Your task to perform on an android device: change notifications settings Image 0: 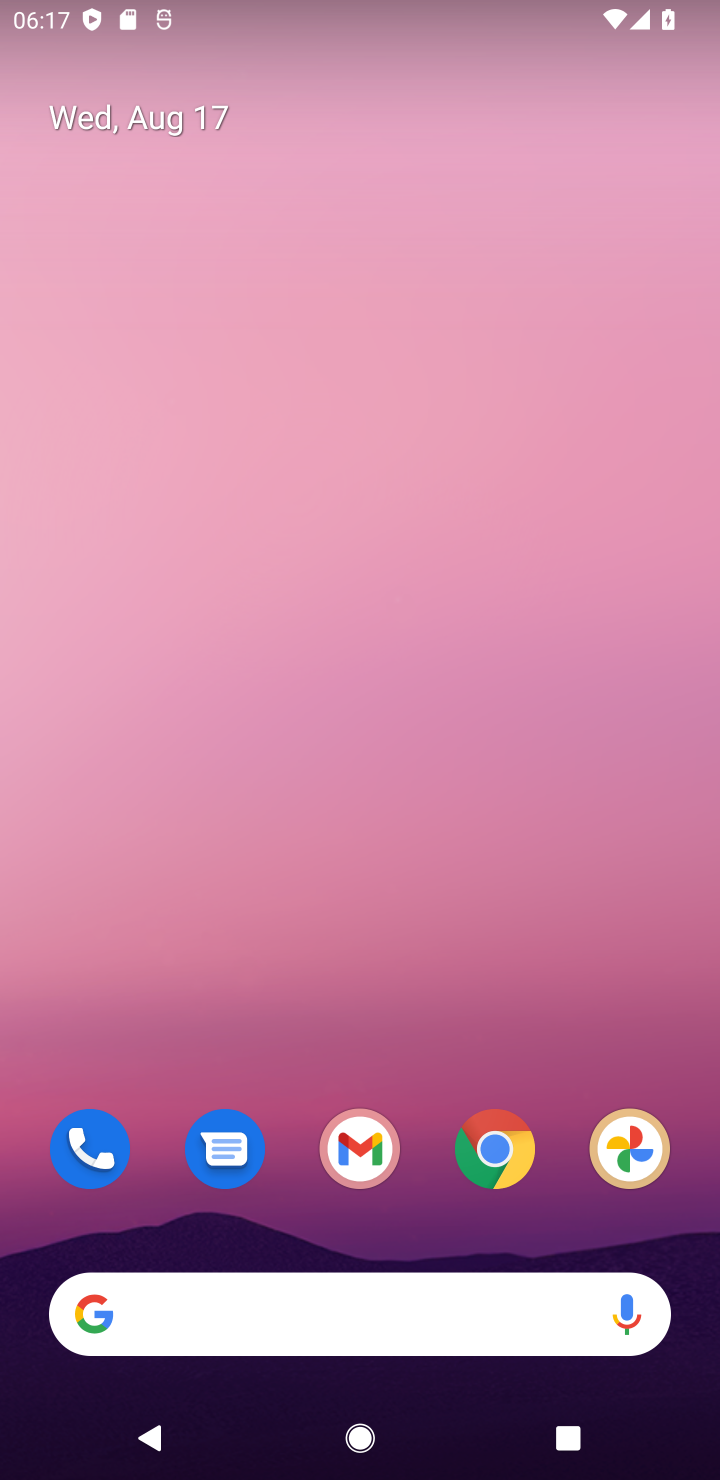
Step 0: drag from (409, 1061) to (340, 208)
Your task to perform on an android device: change notifications settings Image 1: 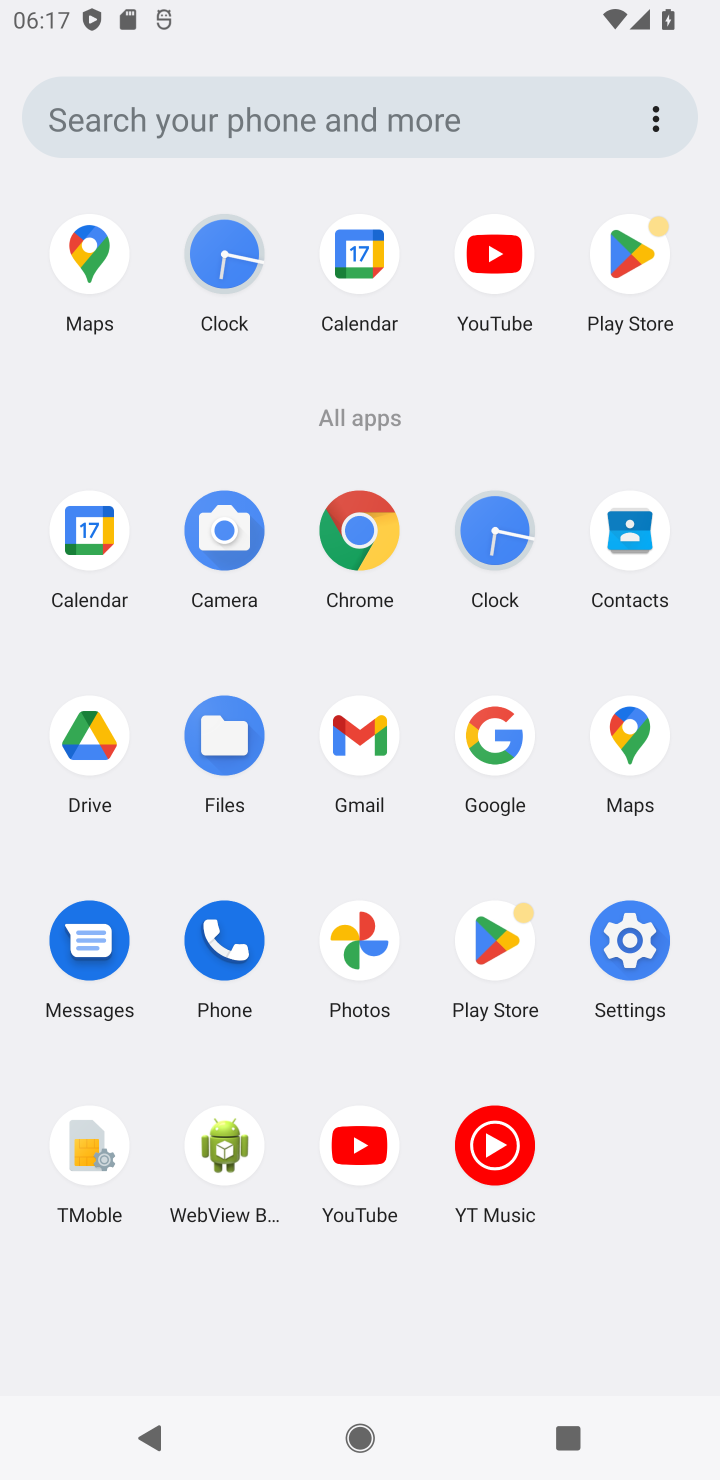
Step 1: click (629, 939)
Your task to perform on an android device: change notifications settings Image 2: 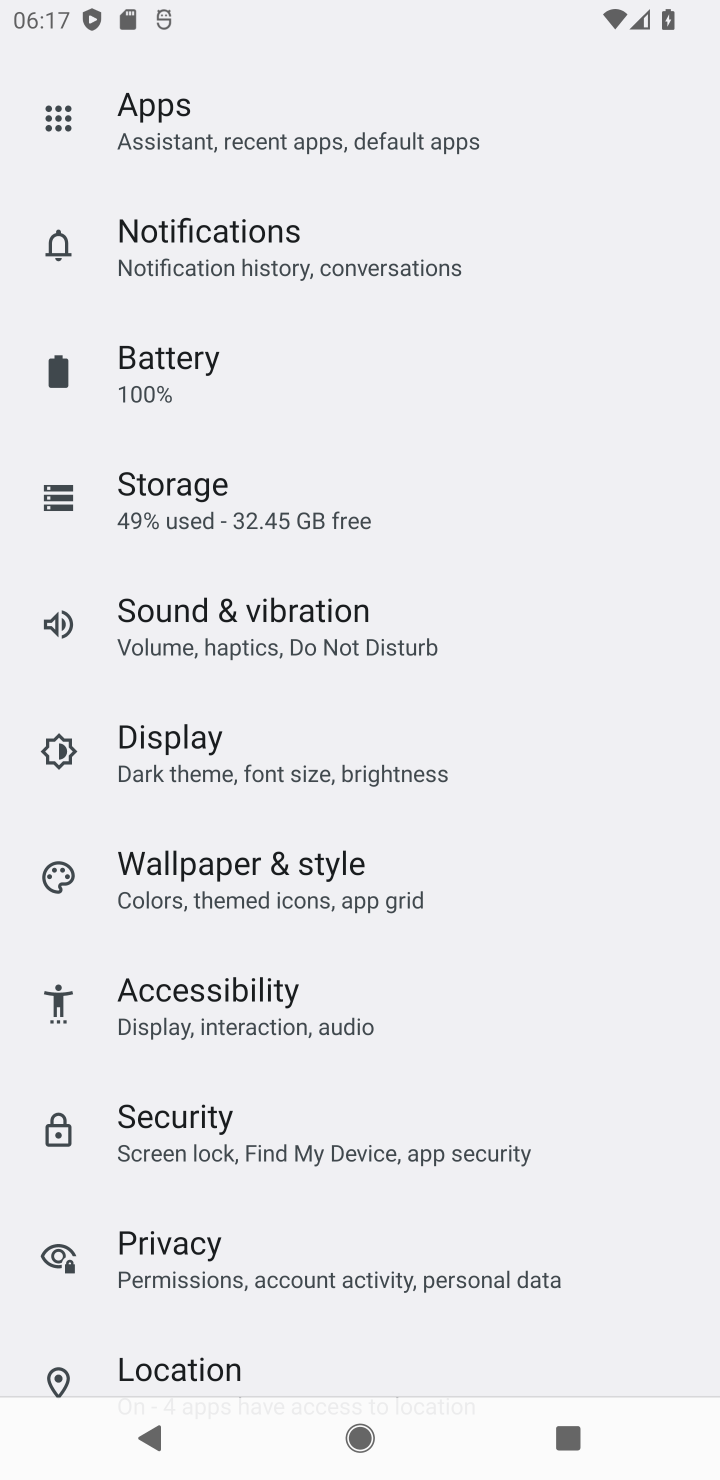
Step 2: click (222, 229)
Your task to perform on an android device: change notifications settings Image 3: 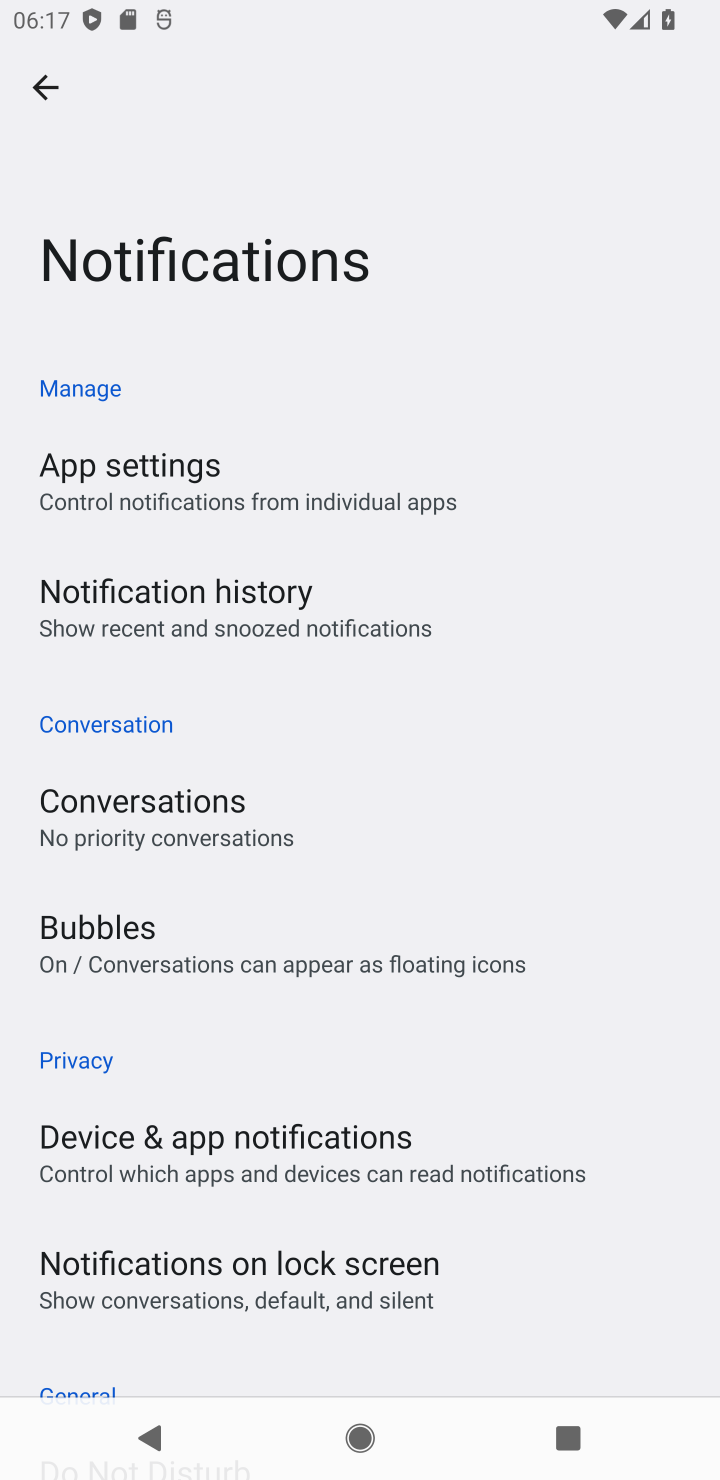
Step 3: click (136, 462)
Your task to perform on an android device: change notifications settings Image 4: 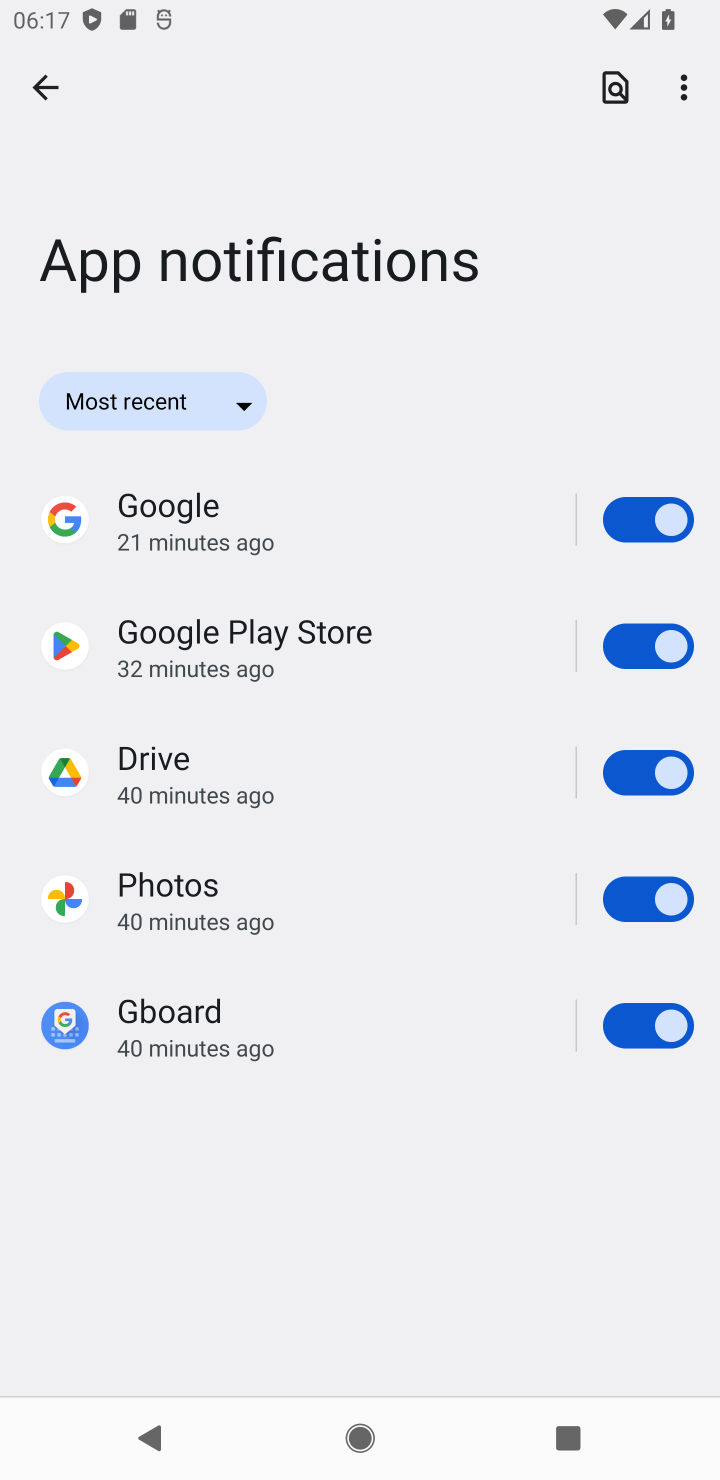
Step 4: click (239, 407)
Your task to perform on an android device: change notifications settings Image 5: 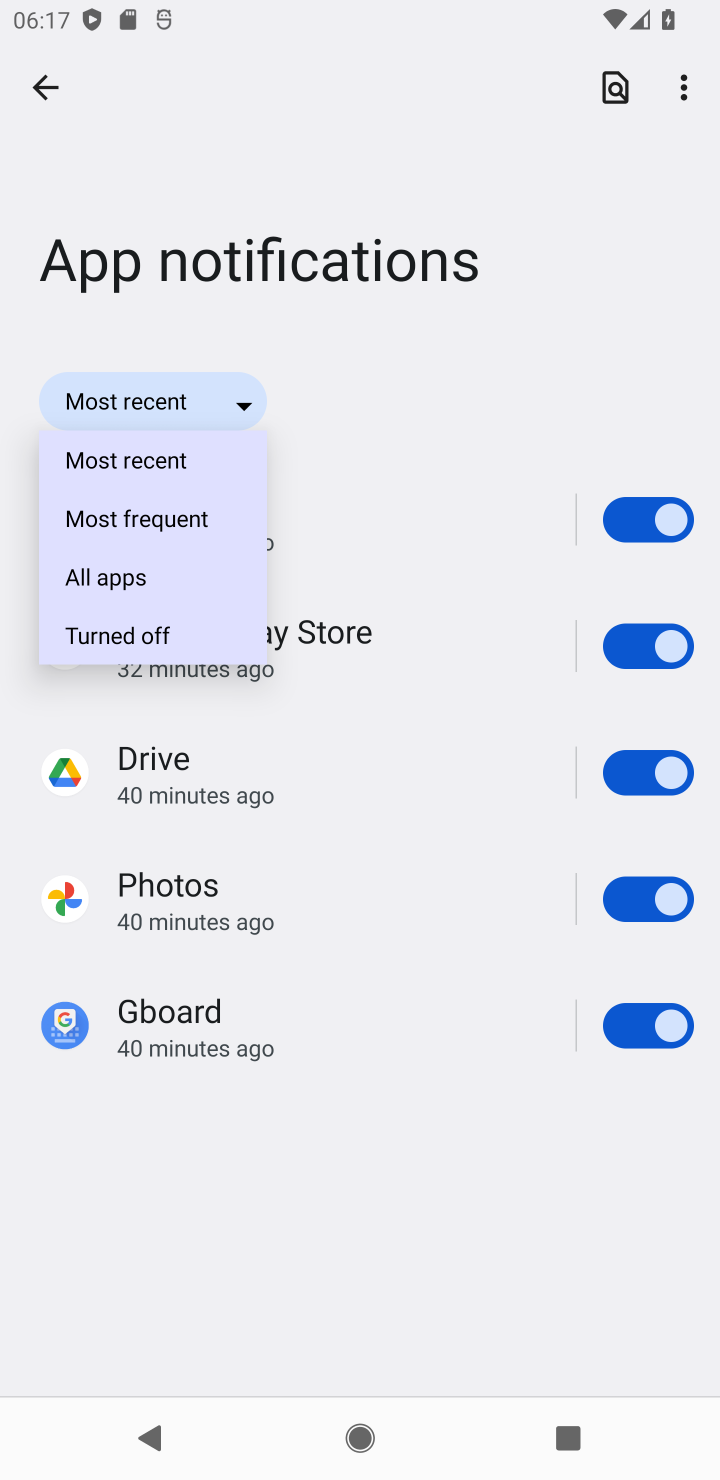
Step 5: click (124, 625)
Your task to perform on an android device: change notifications settings Image 6: 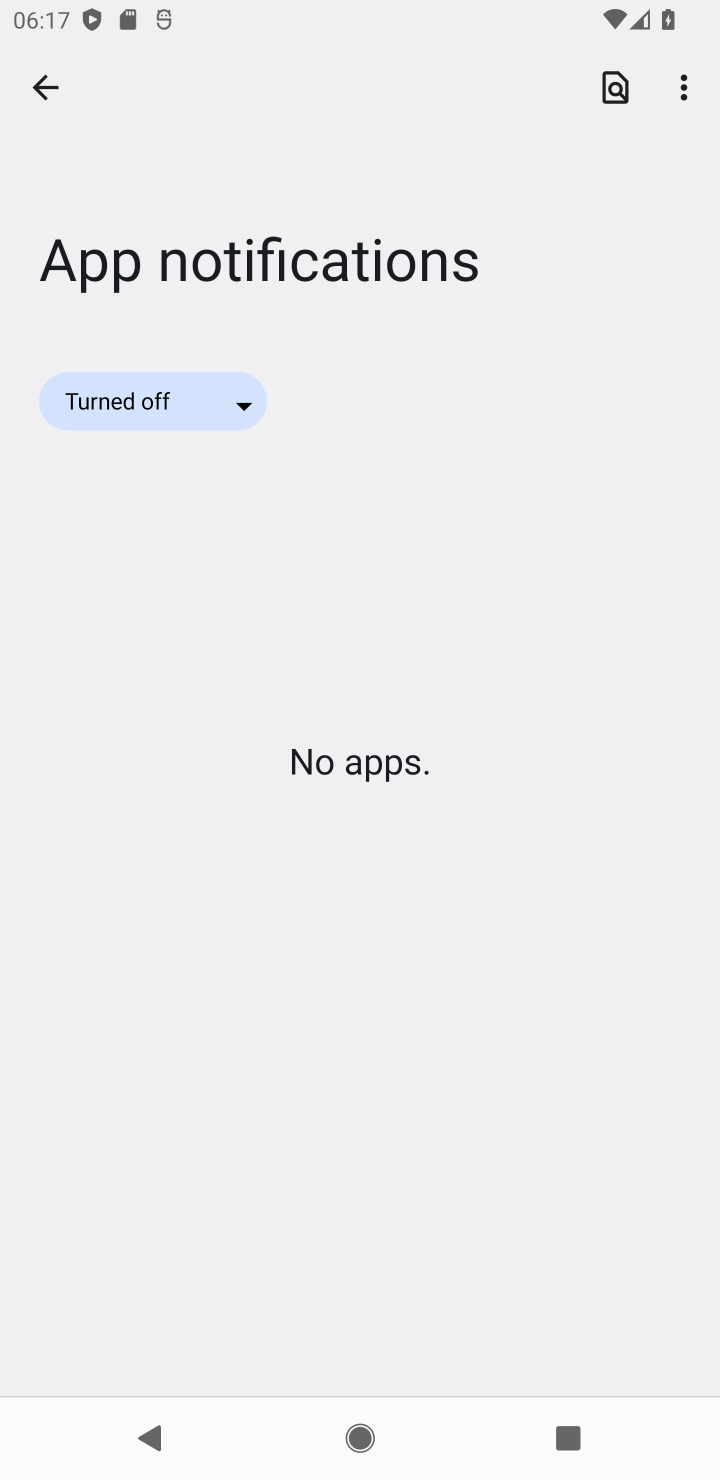
Step 6: task complete